Your task to perform on an android device: View the shopping cart on bestbuy. Add razer naga to the cart on bestbuy, then select checkout. Image 0: 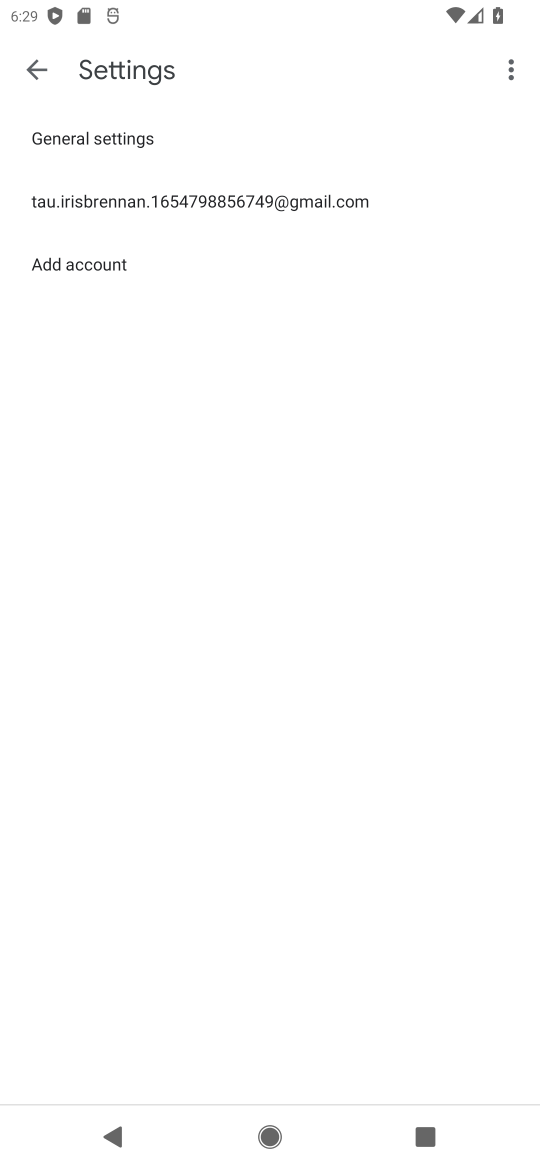
Step 0: press home button
Your task to perform on an android device: View the shopping cart on bestbuy. Add razer naga to the cart on bestbuy, then select checkout. Image 1: 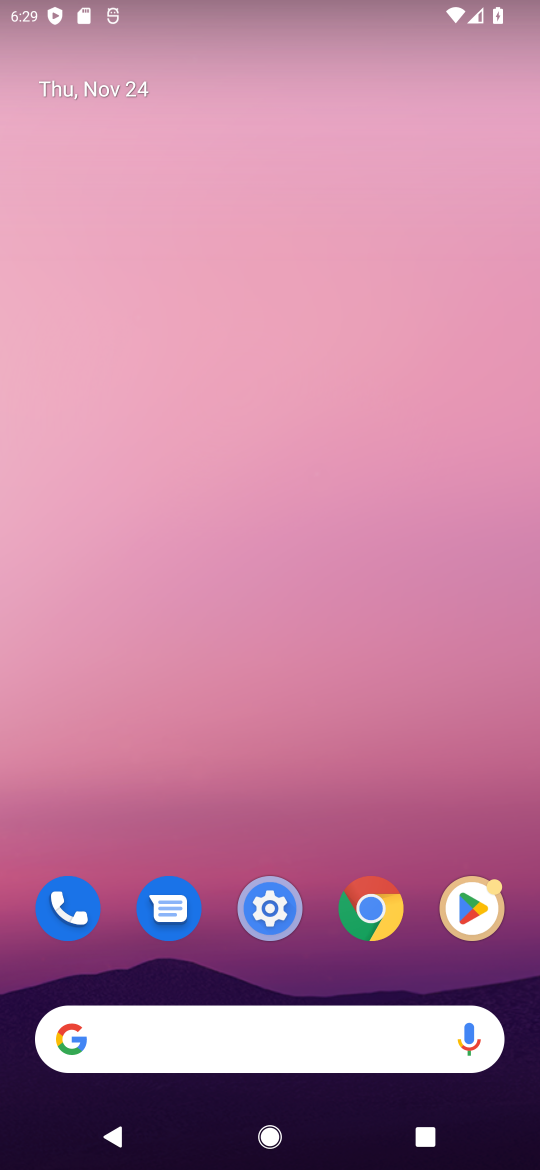
Step 1: click (295, 1019)
Your task to perform on an android device: View the shopping cart on bestbuy. Add razer naga to the cart on bestbuy, then select checkout. Image 2: 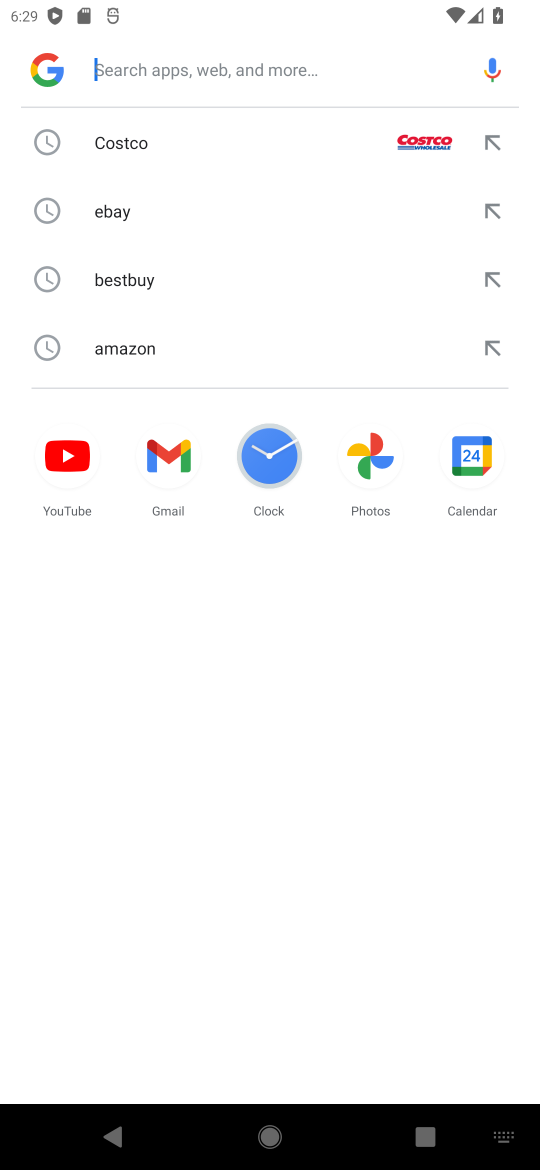
Step 2: type "bestbuy"
Your task to perform on an android device: View the shopping cart on bestbuy. Add razer naga to the cart on bestbuy, then select checkout. Image 3: 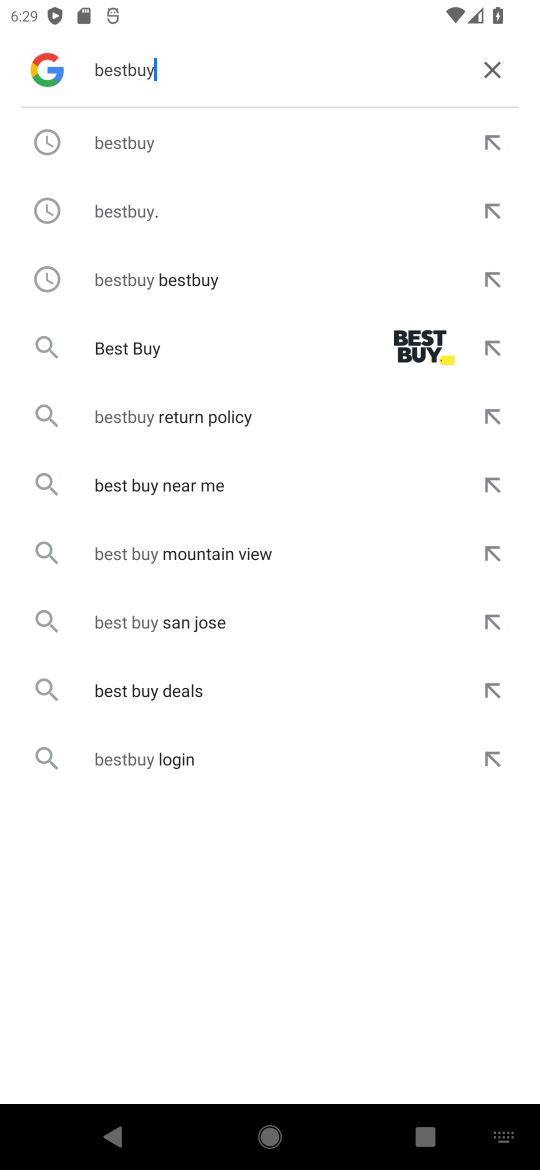
Step 3: click (203, 329)
Your task to perform on an android device: View the shopping cart on bestbuy. Add razer naga to the cart on bestbuy, then select checkout. Image 4: 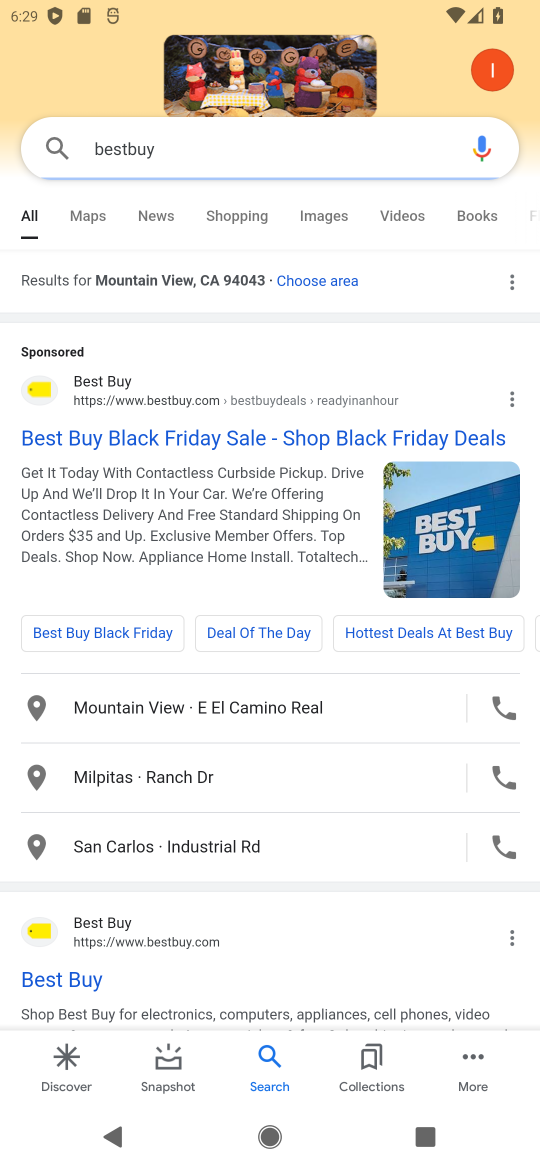
Step 4: click (223, 426)
Your task to perform on an android device: View the shopping cart on bestbuy. Add razer naga to the cart on bestbuy, then select checkout. Image 5: 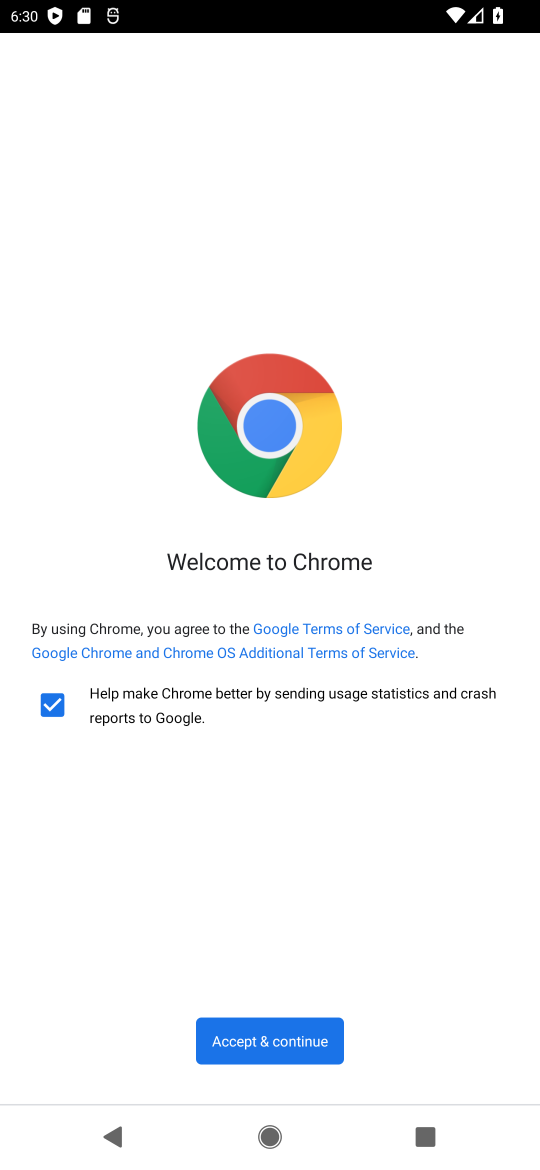
Step 5: click (225, 1071)
Your task to perform on an android device: View the shopping cart on bestbuy. Add razer naga to the cart on bestbuy, then select checkout. Image 6: 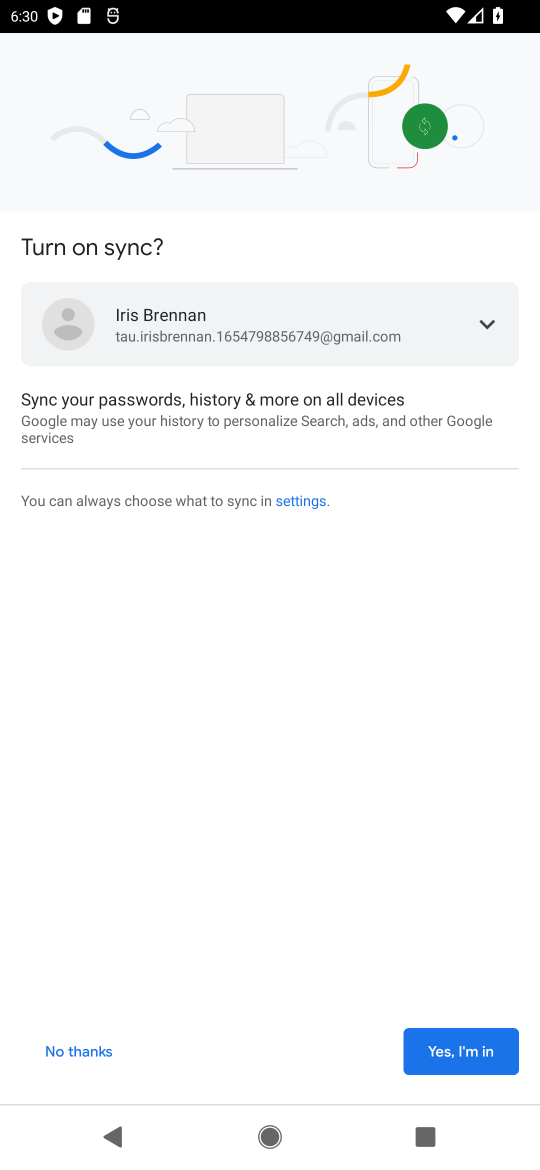
Step 6: click (231, 1046)
Your task to perform on an android device: View the shopping cart on bestbuy. Add razer naga to the cart on bestbuy, then select checkout. Image 7: 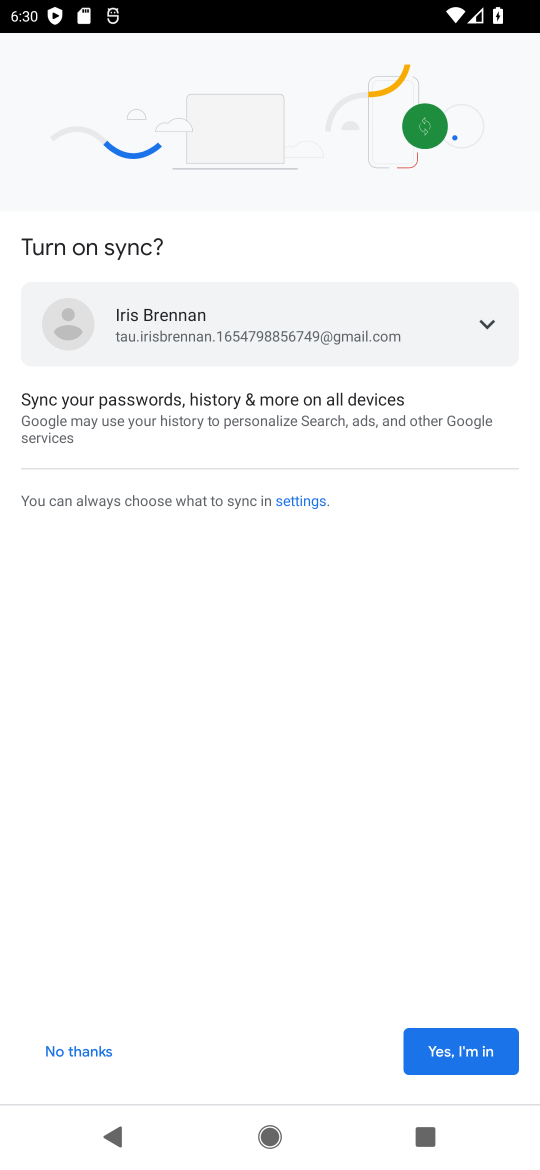
Step 7: click (459, 1063)
Your task to perform on an android device: View the shopping cart on bestbuy. Add razer naga to the cart on bestbuy, then select checkout. Image 8: 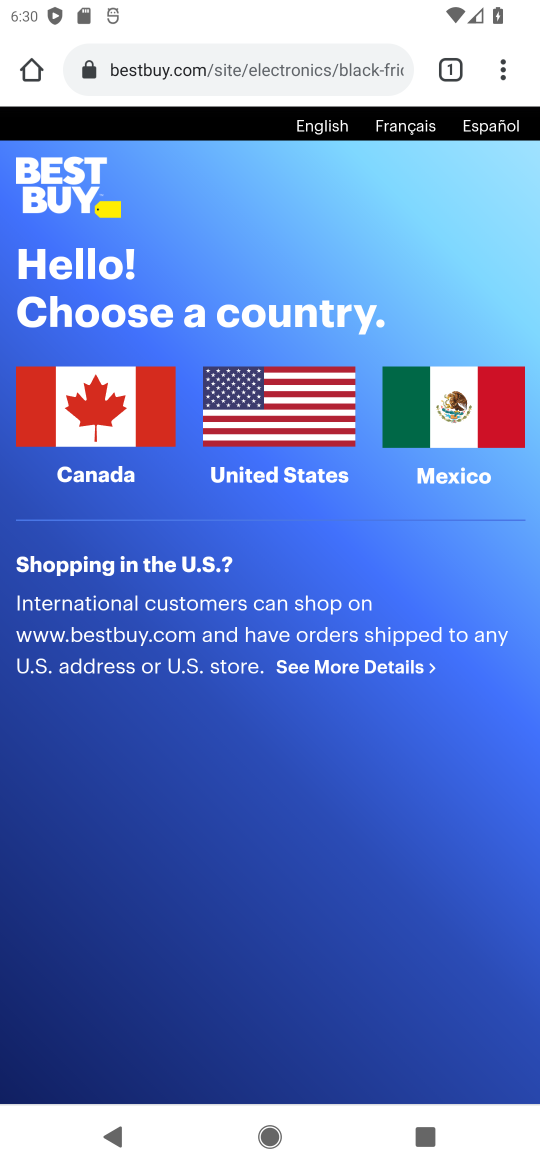
Step 8: click (132, 446)
Your task to perform on an android device: View the shopping cart on bestbuy. Add razer naga to the cart on bestbuy, then select checkout. Image 9: 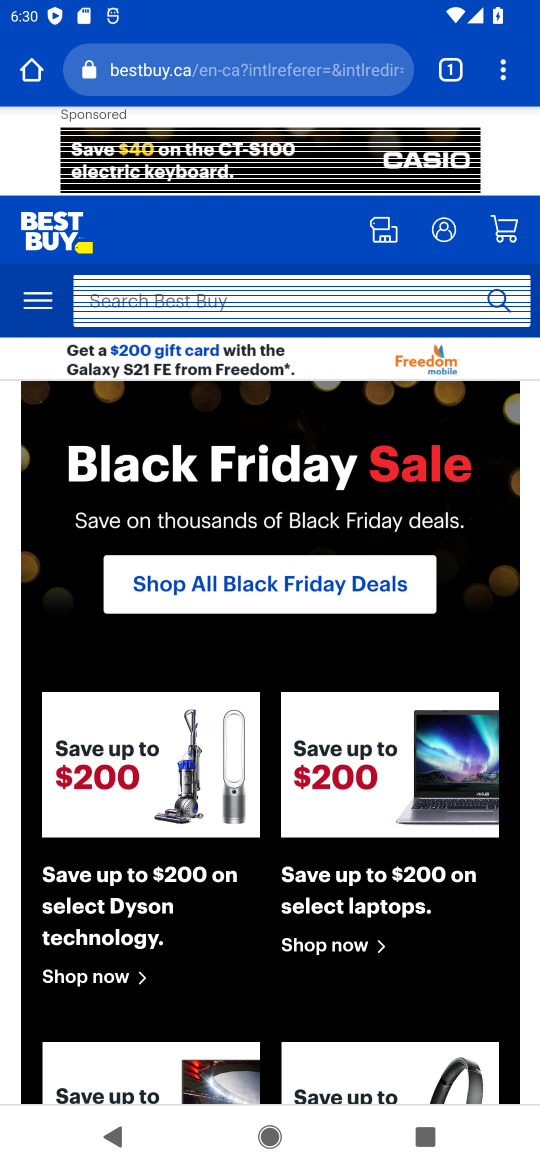
Step 9: click (269, 283)
Your task to perform on an android device: View the shopping cart on bestbuy. Add razer naga to the cart on bestbuy, then select checkout. Image 10: 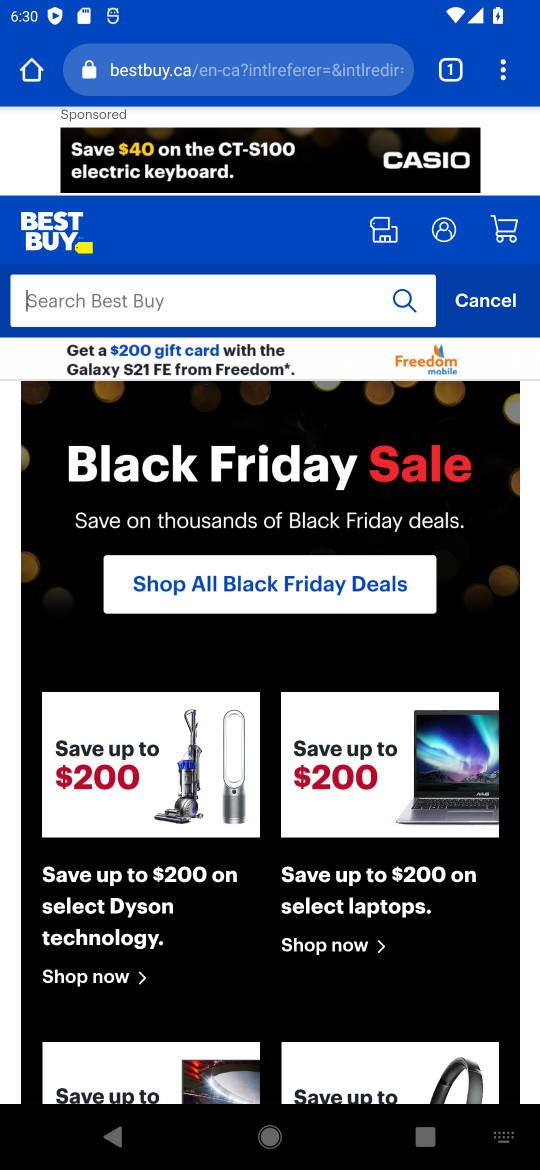
Step 10: type "razer naga"
Your task to perform on an android device: View the shopping cart on bestbuy. Add razer naga to the cart on bestbuy, then select checkout. Image 11: 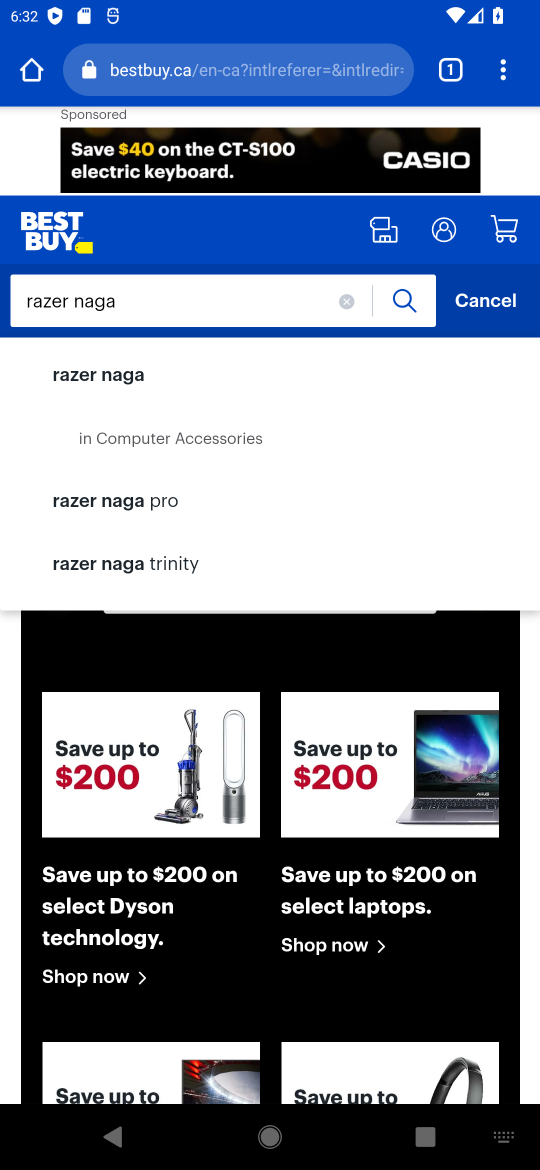
Step 11: click (129, 363)
Your task to perform on an android device: View the shopping cart on bestbuy. Add razer naga to the cart on bestbuy, then select checkout. Image 12: 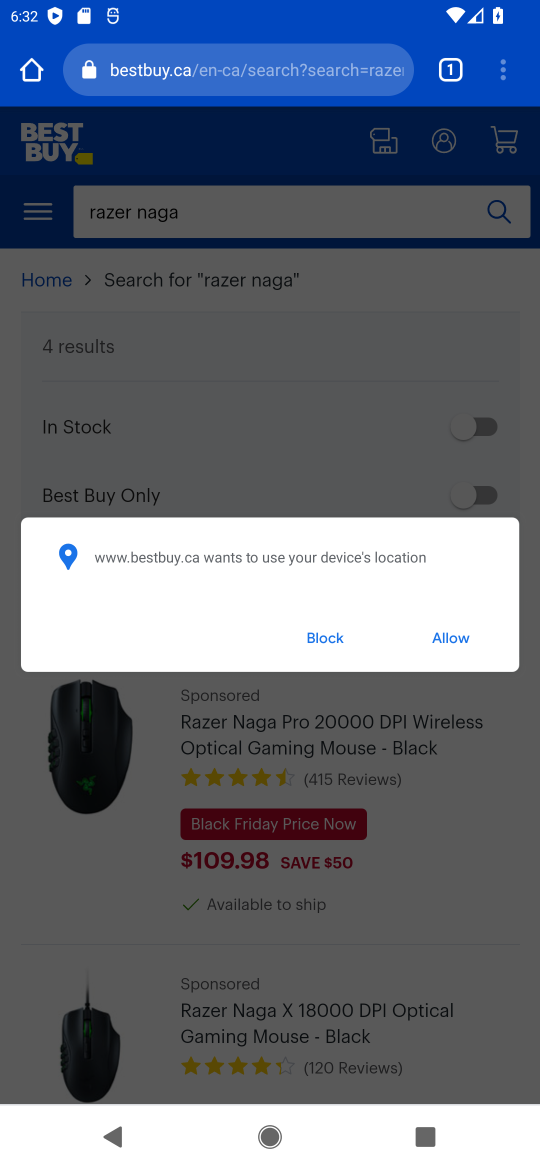
Step 12: click (456, 625)
Your task to perform on an android device: View the shopping cart on bestbuy. Add razer naga to the cart on bestbuy, then select checkout. Image 13: 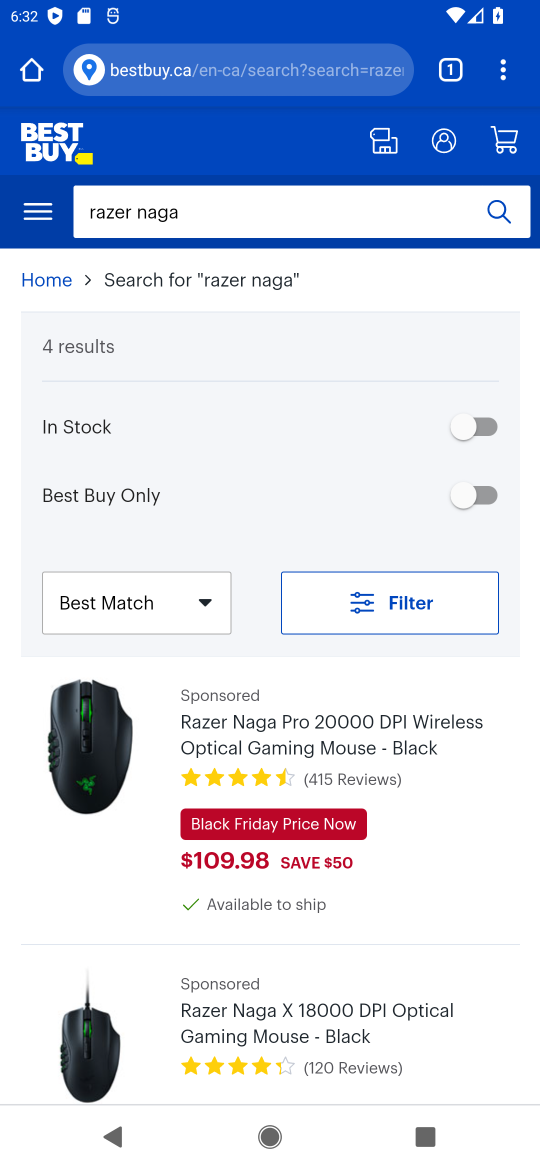
Step 13: click (296, 753)
Your task to perform on an android device: View the shopping cart on bestbuy. Add razer naga to the cart on bestbuy, then select checkout. Image 14: 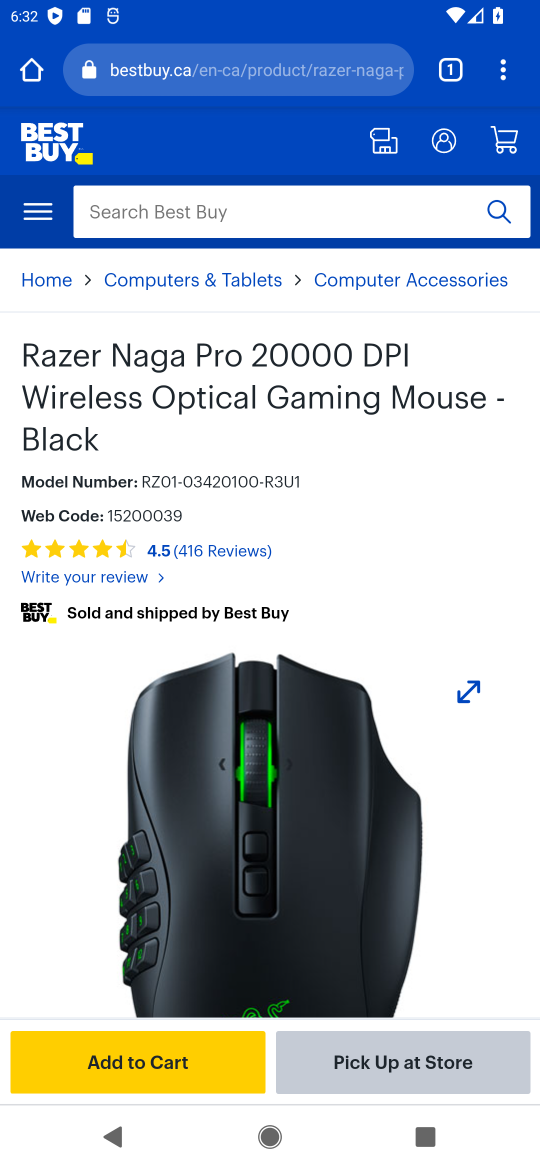
Step 14: click (157, 1068)
Your task to perform on an android device: View the shopping cart on bestbuy. Add razer naga to the cart on bestbuy, then select checkout. Image 15: 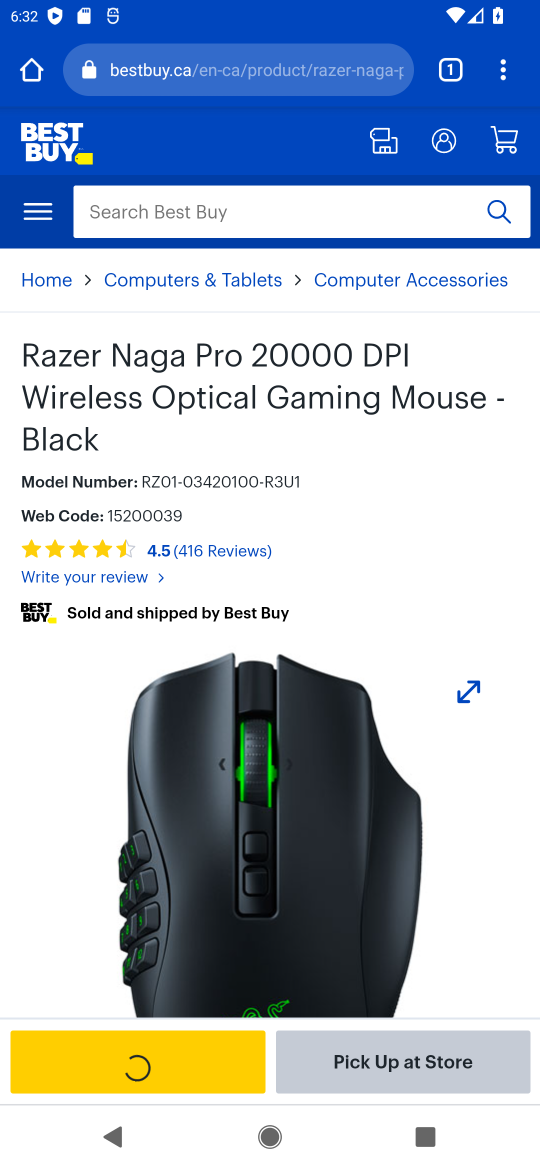
Step 15: task complete